Your task to perform on an android device: Open notification settings Image 0: 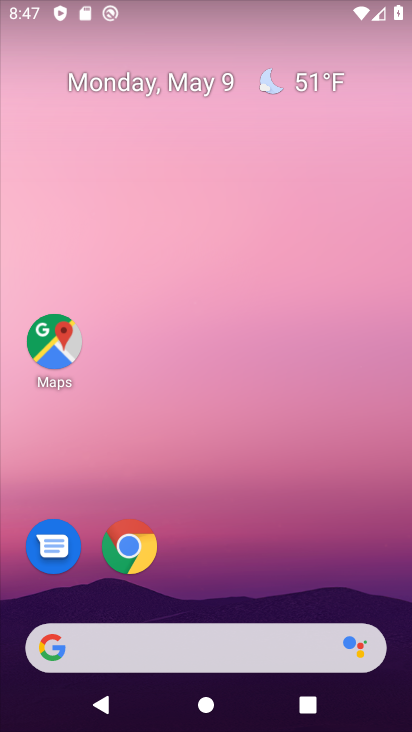
Step 0: drag from (249, 380) to (209, 104)
Your task to perform on an android device: Open notification settings Image 1: 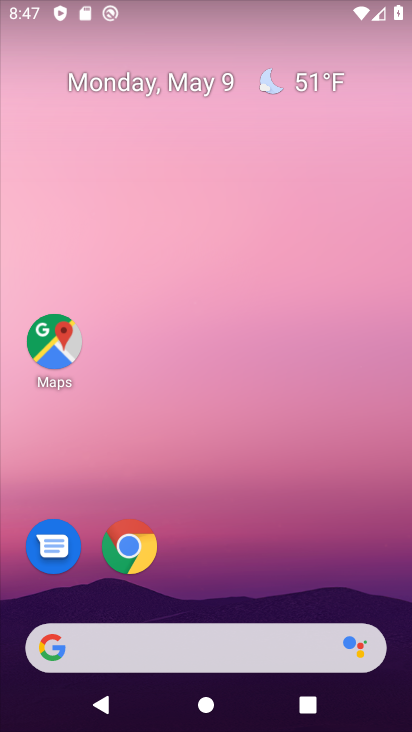
Step 1: drag from (246, 566) to (202, 13)
Your task to perform on an android device: Open notification settings Image 2: 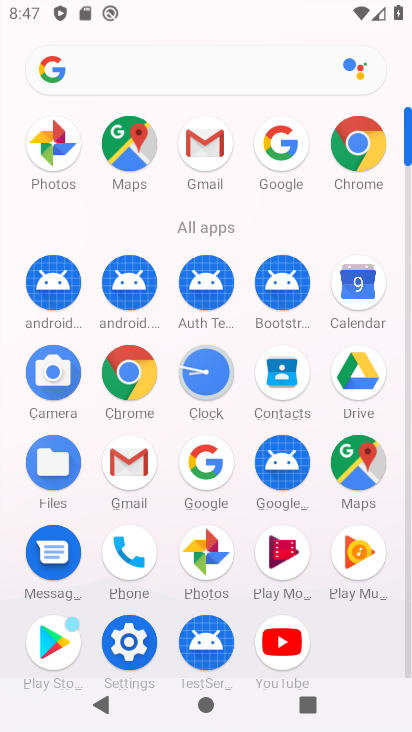
Step 2: click (131, 641)
Your task to perform on an android device: Open notification settings Image 3: 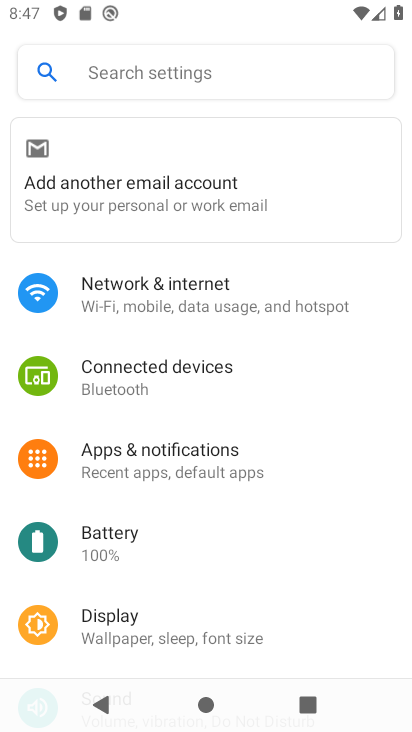
Step 3: click (211, 445)
Your task to perform on an android device: Open notification settings Image 4: 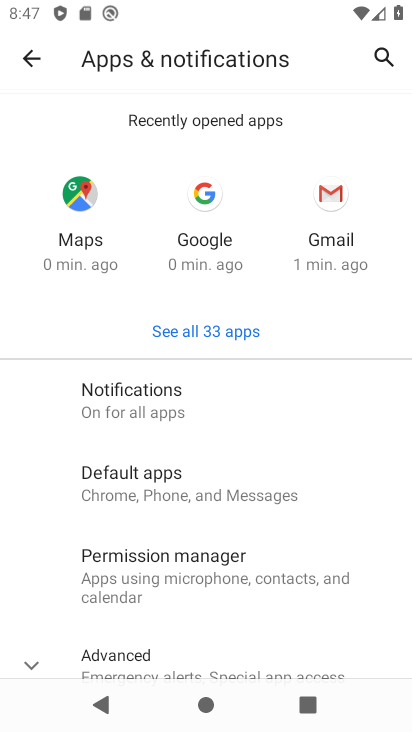
Step 4: task complete